Your task to perform on an android device: Open Wikipedia Image 0: 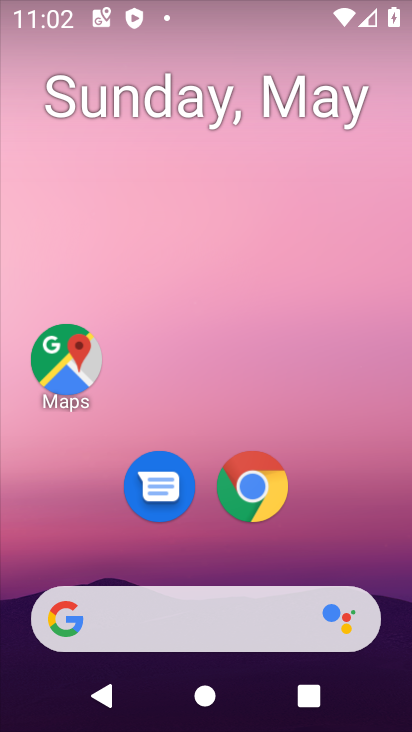
Step 0: drag from (290, 561) to (248, 36)
Your task to perform on an android device: Open Wikipedia Image 1: 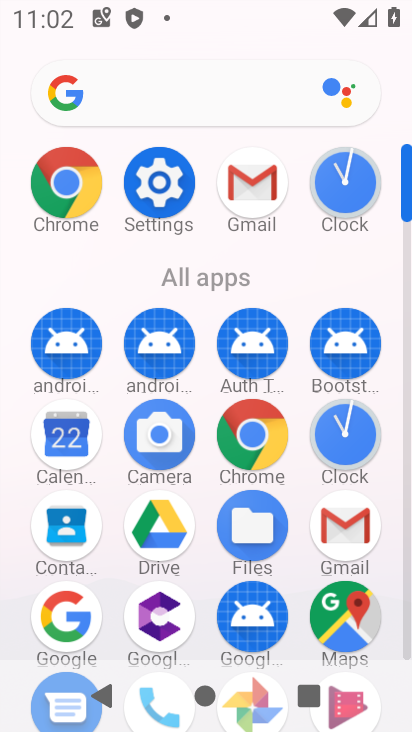
Step 1: click (60, 198)
Your task to perform on an android device: Open Wikipedia Image 2: 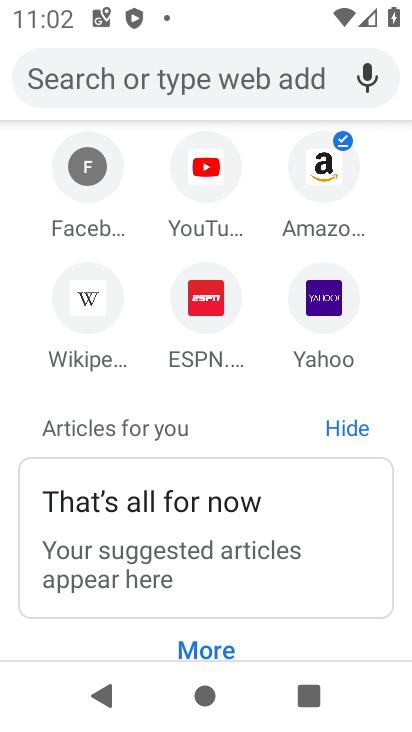
Step 2: click (79, 307)
Your task to perform on an android device: Open Wikipedia Image 3: 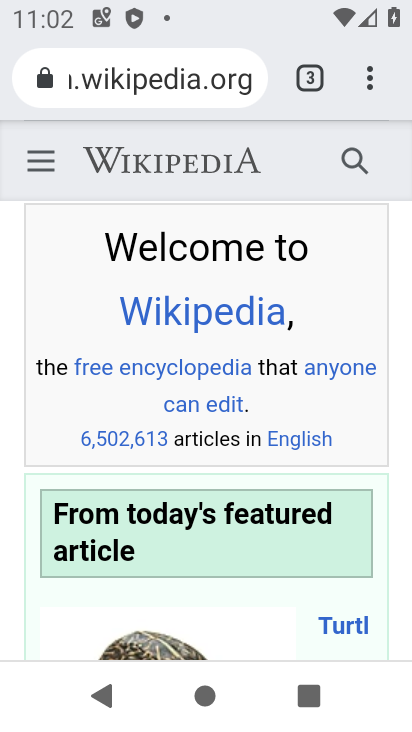
Step 3: task complete